Your task to perform on an android device: Open Amazon Image 0: 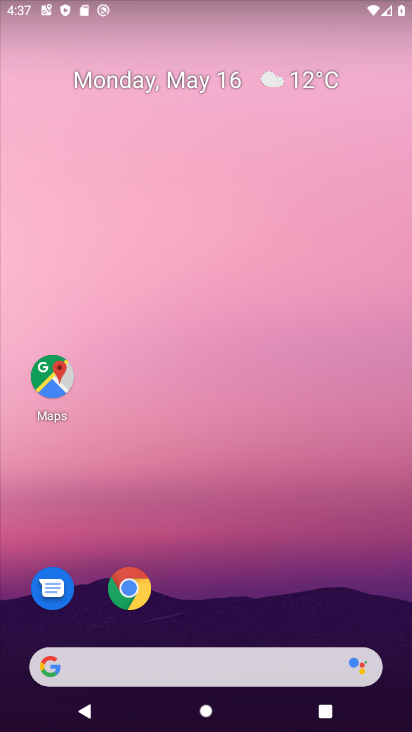
Step 0: click (128, 582)
Your task to perform on an android device: Open Amazon Image 1: 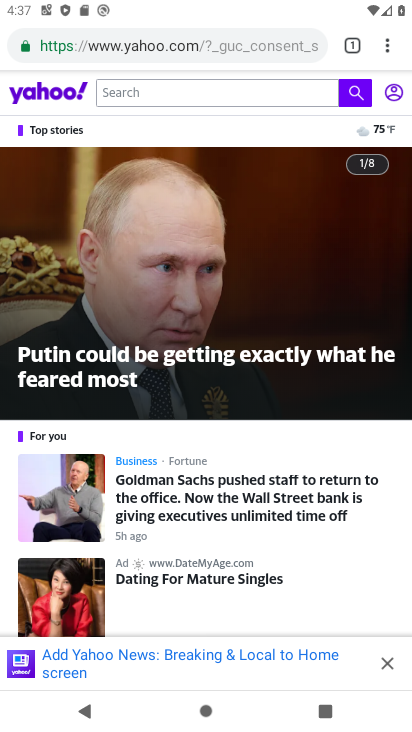
Step 1: click (363, 41)
Your task to perform on an android device: Open Amazon Image 2: 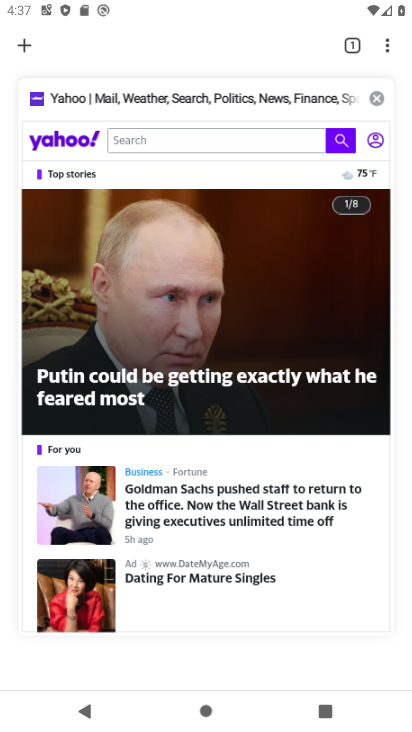
Step 2: click (26, 53)
Your task to perform on an android device: Open Amazon Image 3: 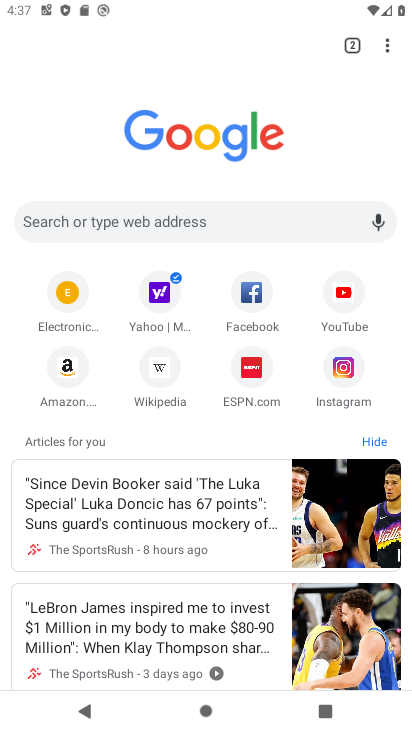
Step 3: click (79, 375)
Your task to perform on an android device: Open Amazon Image 4: 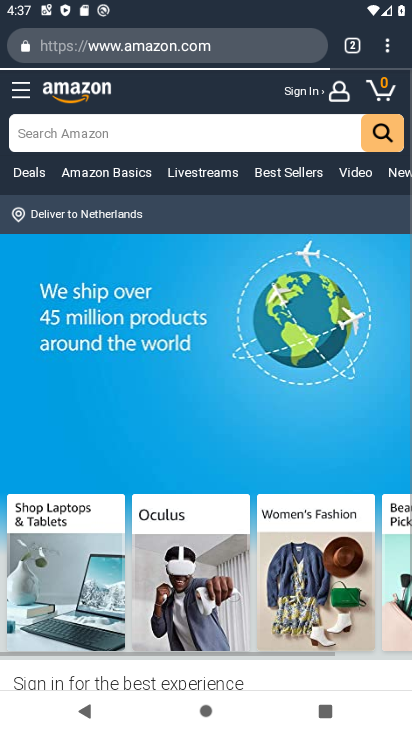
Step 4: task complete